Your task to perform on an android device: toggle wifi Image 0: 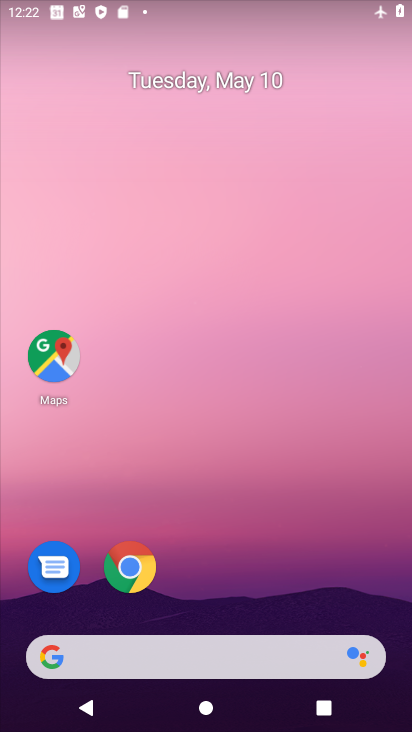
Step 0: drag from (199, 7) to (310, 447)
Your task to perform on an android device: toggle wifi Image 1: 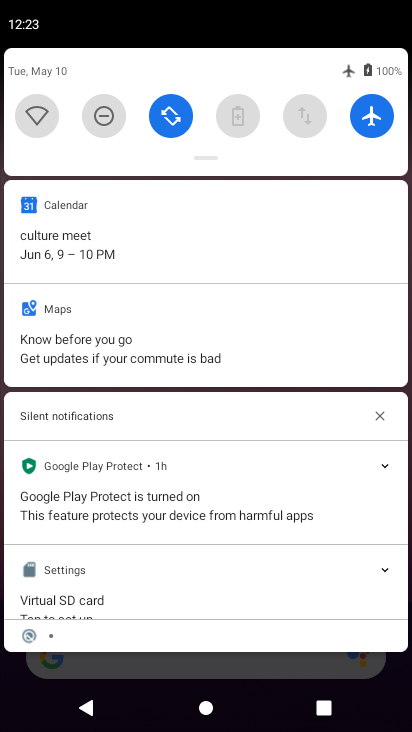
Step 1: click (44, 128)
Your task to perform on an android device: toggle wifi Image 2: 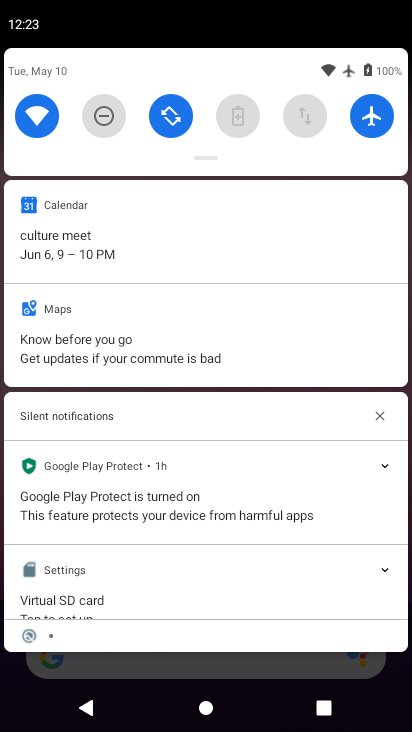
Step 2: task complete